Your task to perform on an android device: Open Google Chrome Image 0: 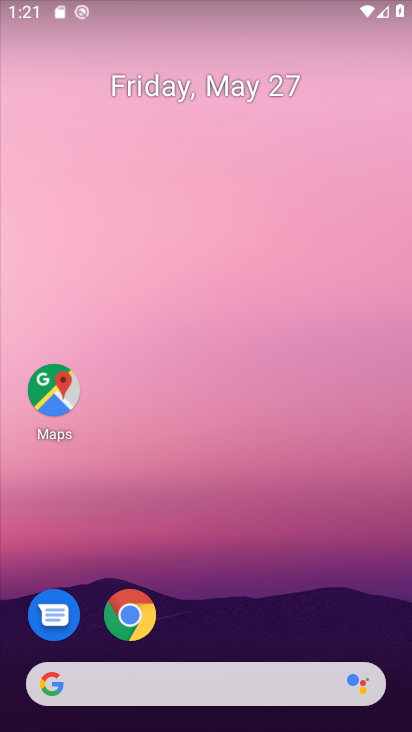
Step 0: click (138, 625)
Your task to perform on an android device: Open Google Chrome Image 1: 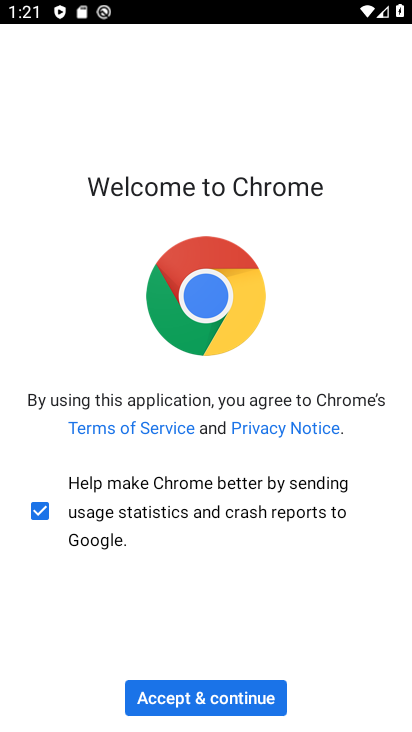
Step 1: click (172, 703)
Your task to perform on an android device: Open Google Chrome Image 2: 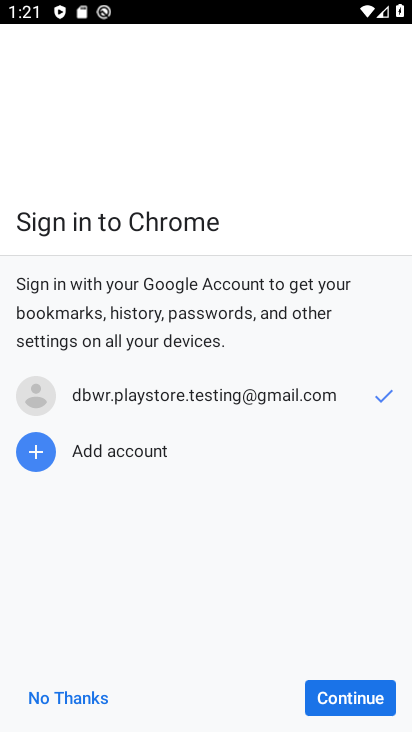
Step 2: click (323, 702)
Your task to perform on an android device: Open Google Chrome Image 3: 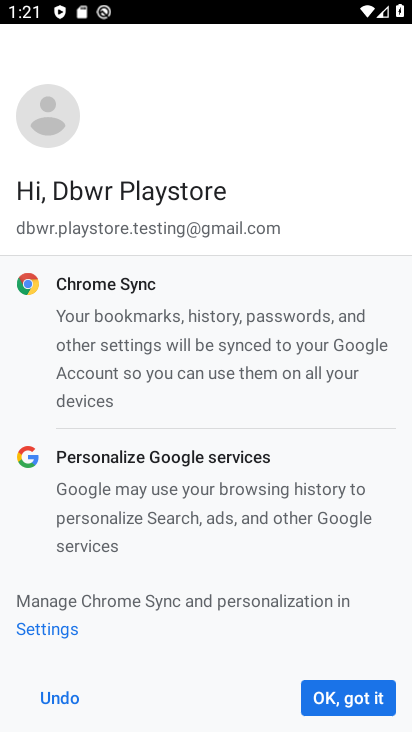
Step 3: click (322, 703)
Your task to perform on an android device: Open Google Chrome Image 4: 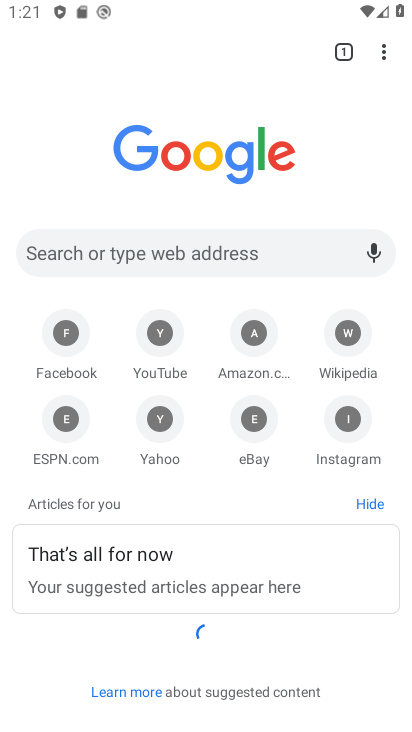
Step 4: task complete